Your task to perform on an android device: When is my next appointment? Image 0: 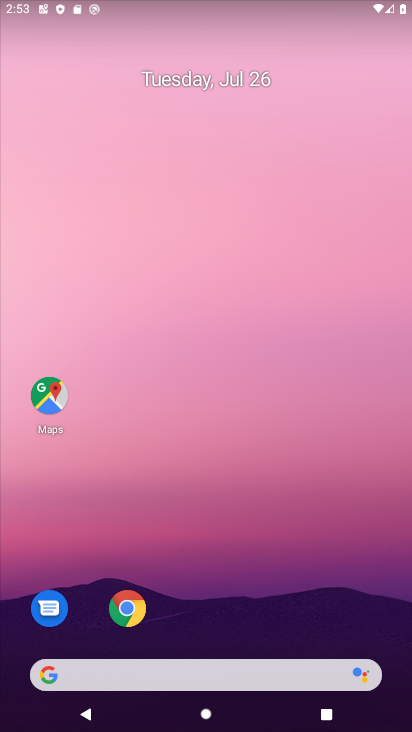
Step 0: drag from (357, 634) to (302, 41)
Your task to perform on an android device: When is my next appointment? Image 1: 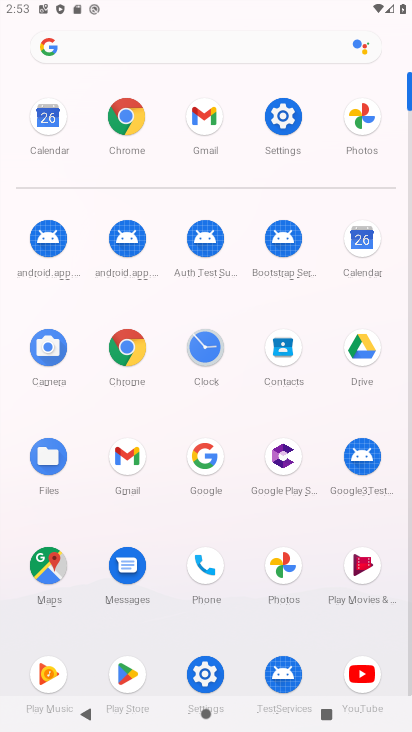
Step 1: click (310, 120)
Your task to perform on an android device: When is my next appointment? Image 2: 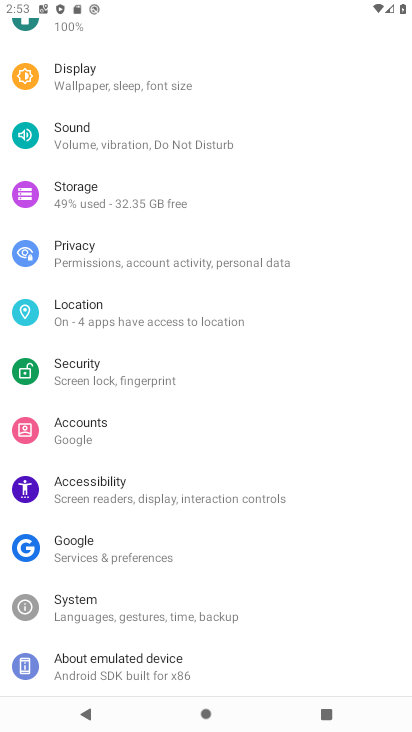
Step 2: task complete